Your task to perform on an android device: View the shopping cart on bestbuy.com. Image 0: 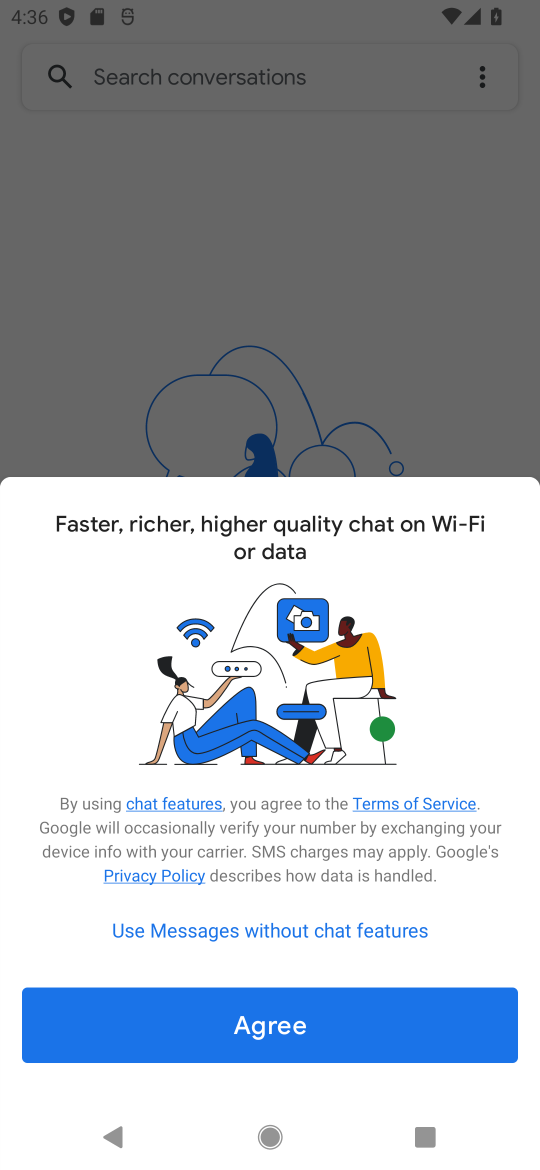
Step 0: press home button
Your task to perform on an android device: View the shopping cart on bestbuy.com. Image 1: 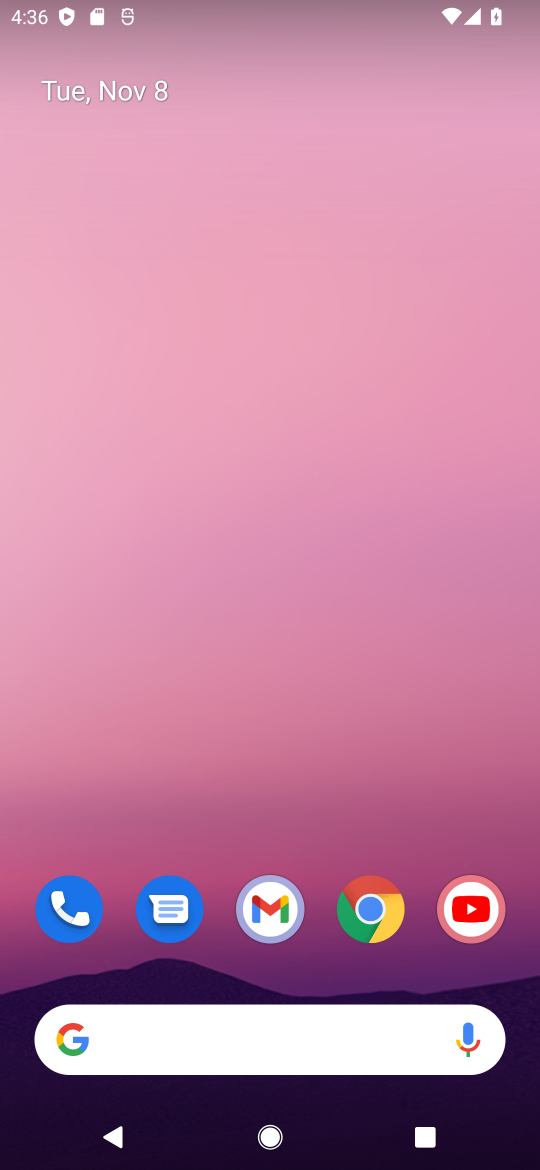
Step 1: click (360, 904)
Your task to perform on an android device: View the shopping cart on bestbuy.com. Image 2: 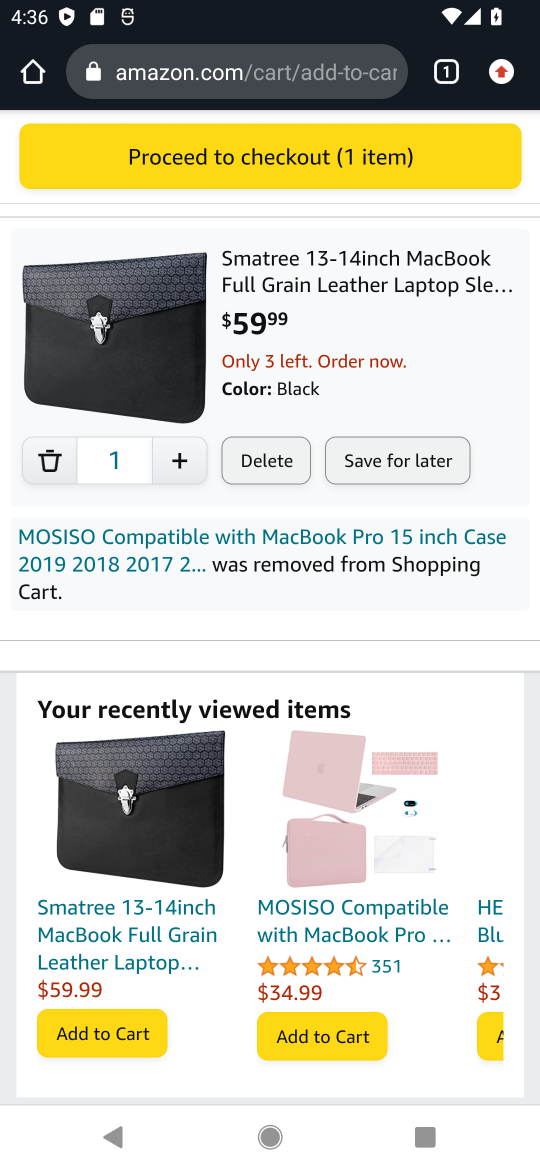
Step 2: click (293, 61)
Your task to perform on an android device: View the shopping cart on bestbuy.com. Image 3: 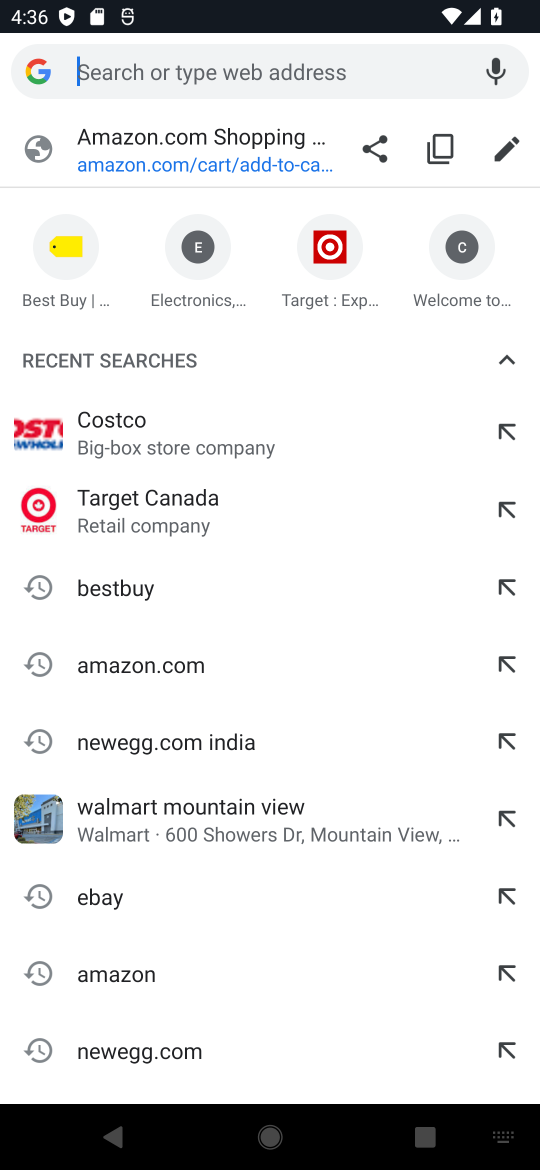
Step 3: click (94, 584)
Your task to perform on an android device: View the shopping cart on bestbuy.com. Image 4: 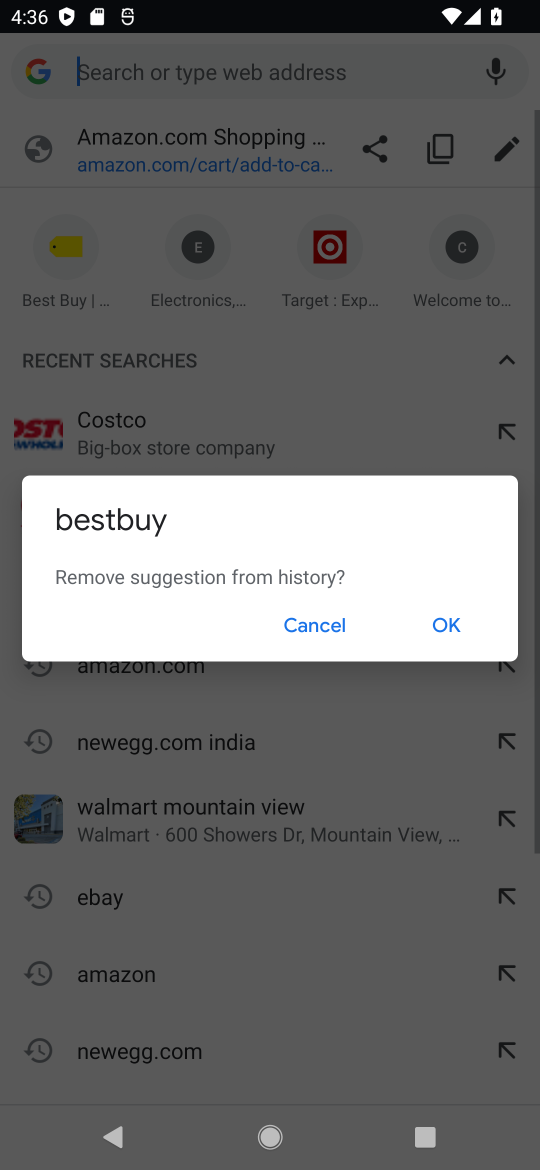
Step 4: click (293, 616)
Your task to perform on an android device: View the shopping cart on bestbuy.com. Image 5: 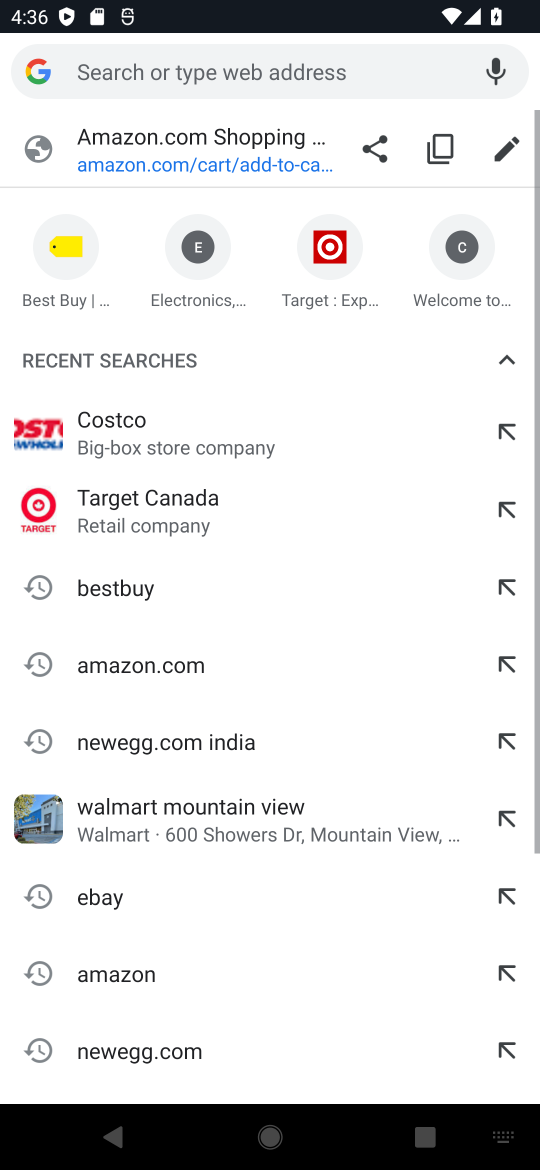
Step 5: click (127, 588)
Your task to perform on an android device: View the shopping cart on bestbuy.com. Image 6: 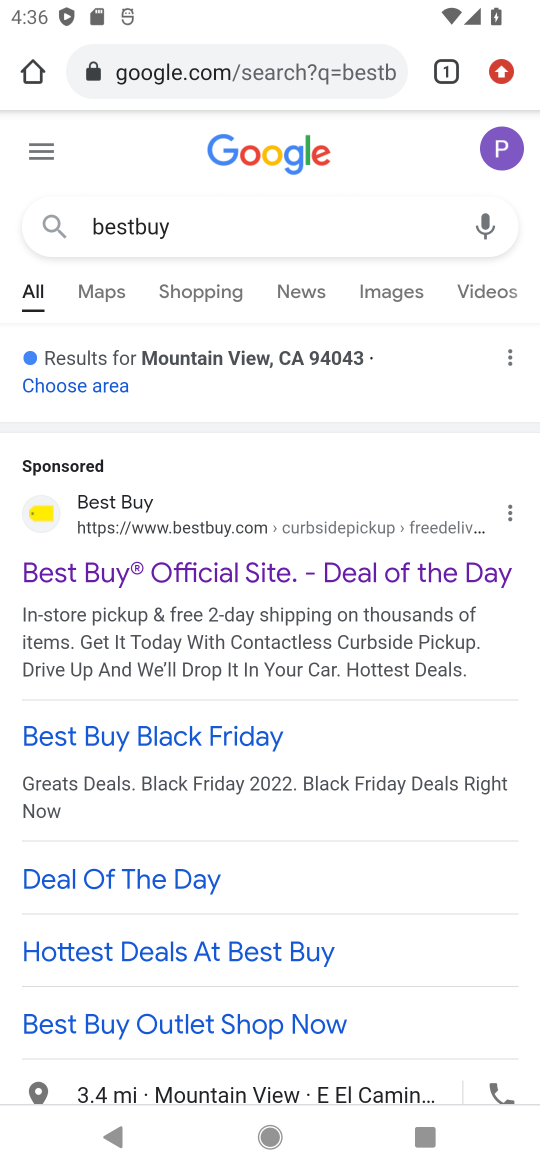
Step 6: click (184, 561)
Your task to perform on an android device: View the shopping cart on bestbuy.com. Image 7: 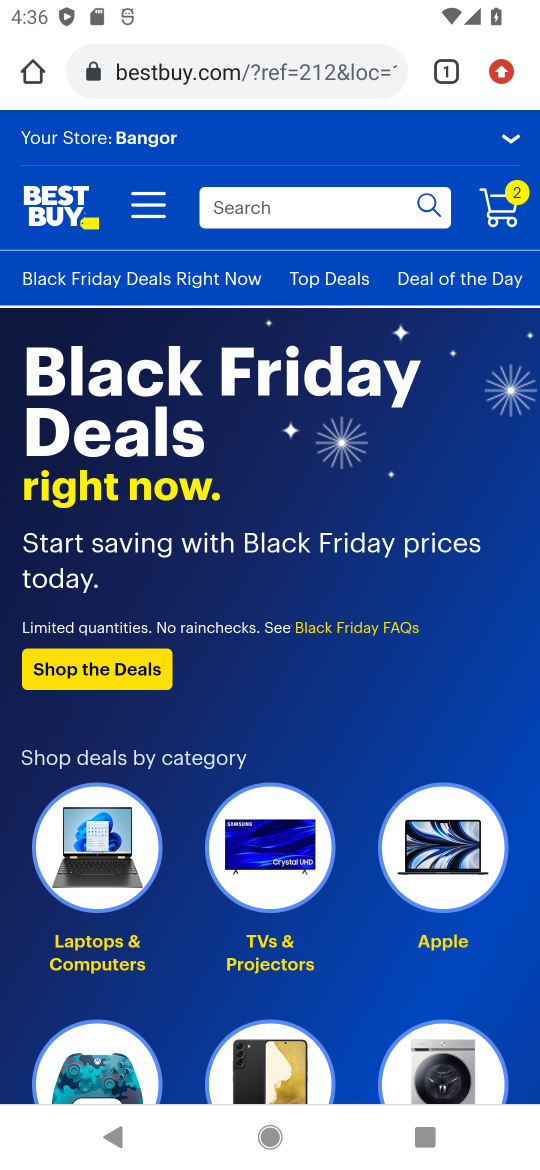
Step 7: click (508, 201)
Your task to perform on an android device: View the shopping cart on bestbuy.com. Image 8: 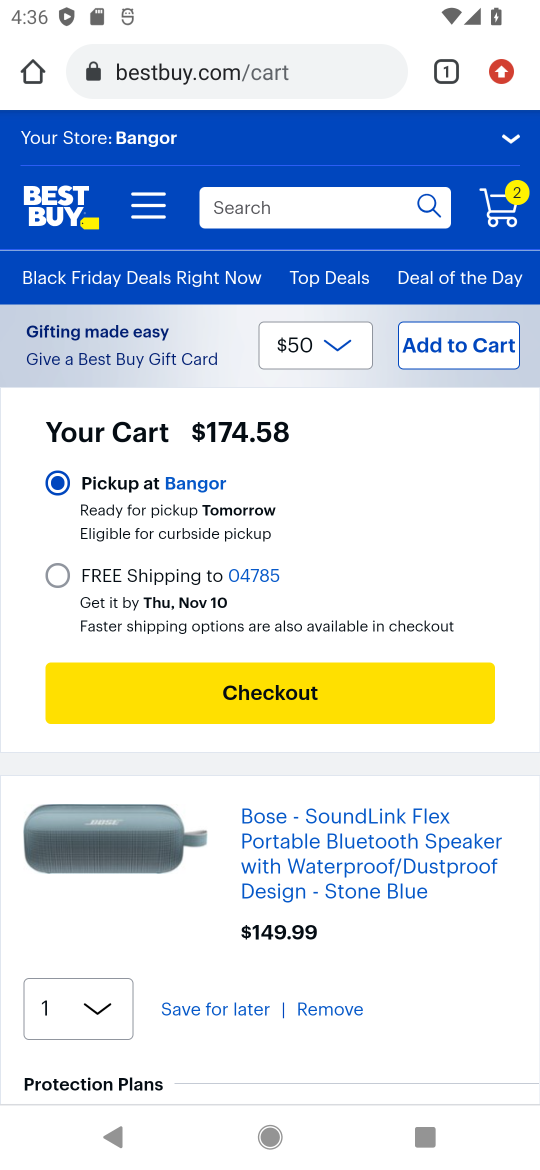
Step 8: drag from (211, 893) to (433, 349)
Your task to perform on an android device: View the shopping cart on bestbuy.com. Image 9: 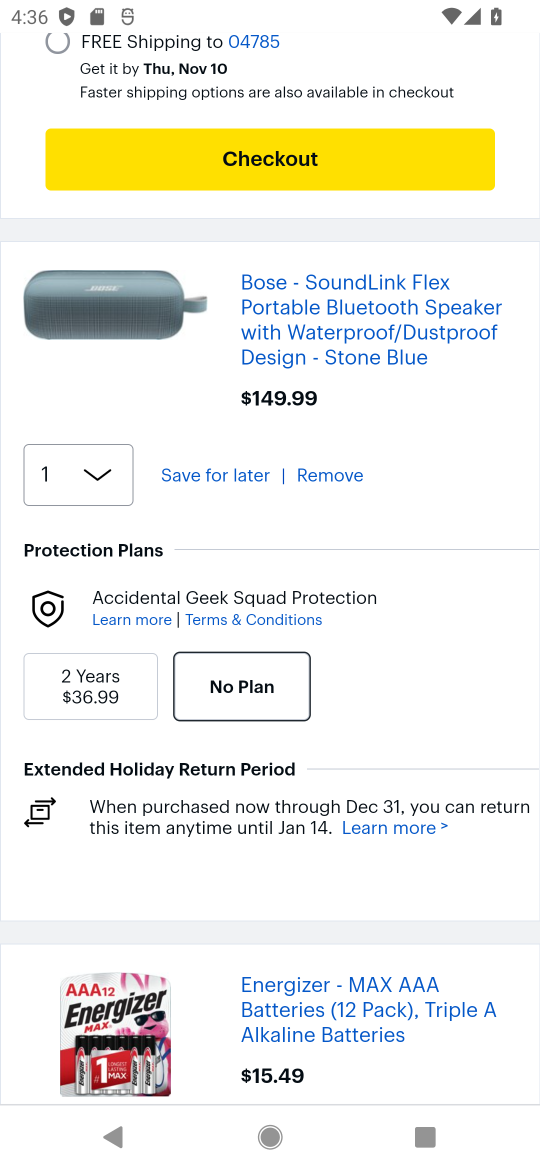
Step 9: click (326, 469)
Your task to perform on an android device: View the shopping cart on bestbuy.com. Image 10: 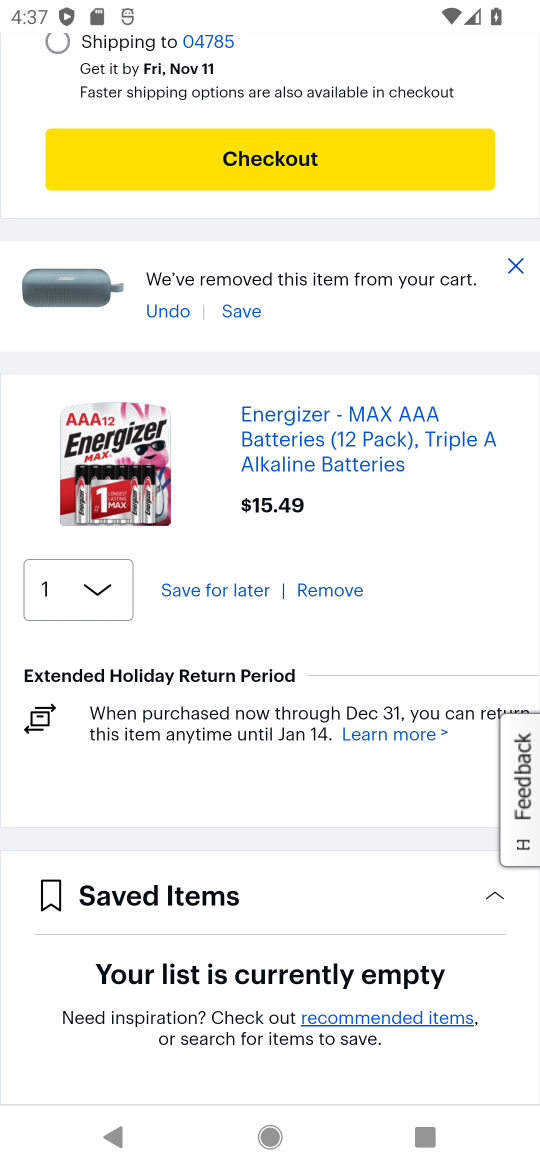
Step 10: task complete